Your task to perform on an android device: all mails in gmail Image 0: 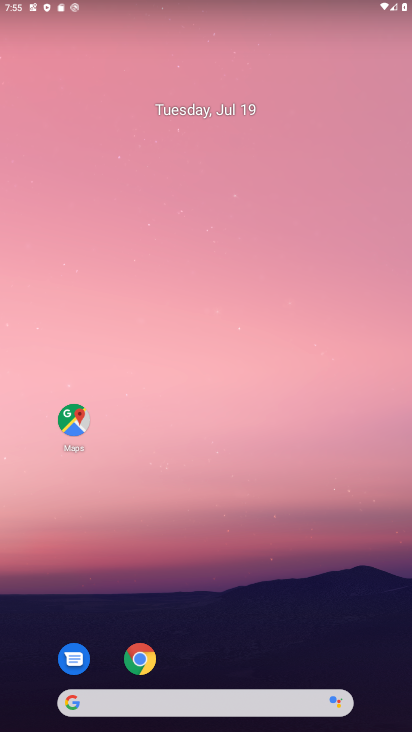
Step 0: drag from (170, 692) to (182, 20)
Your task to perform on an android device: all mails in gmail Image 1: 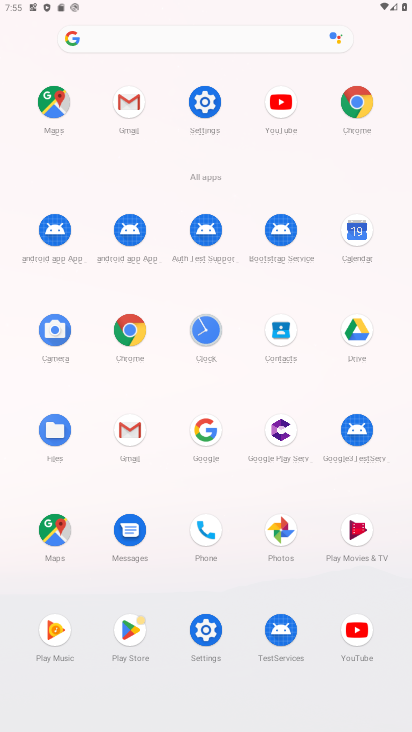
Step 1: click (122, 114)
Your task to perform on an android device: all mails in gmail Image 2: 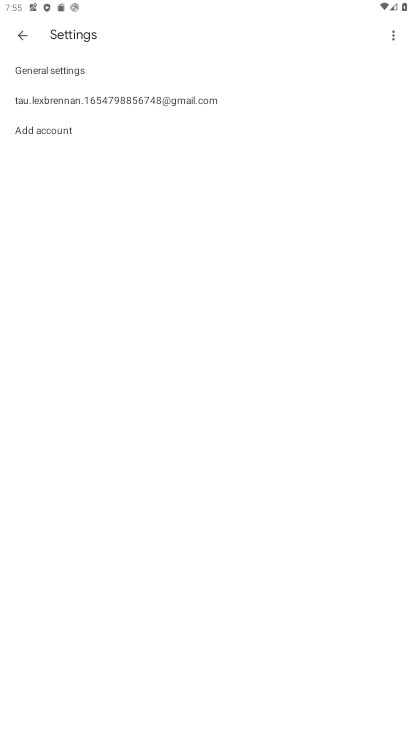
Step 2: click (22, 39)
Your task to perform on an android device: all mails in gmail Image 3: 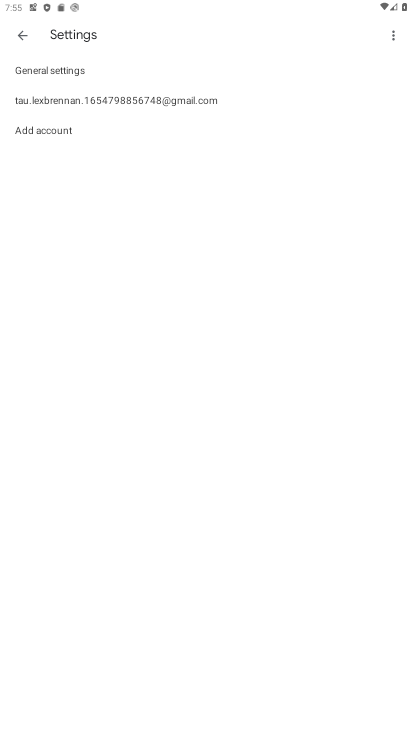
Step 3: click (17, 35)
Your task to perform on an android device: all mails in gmail Image 4: 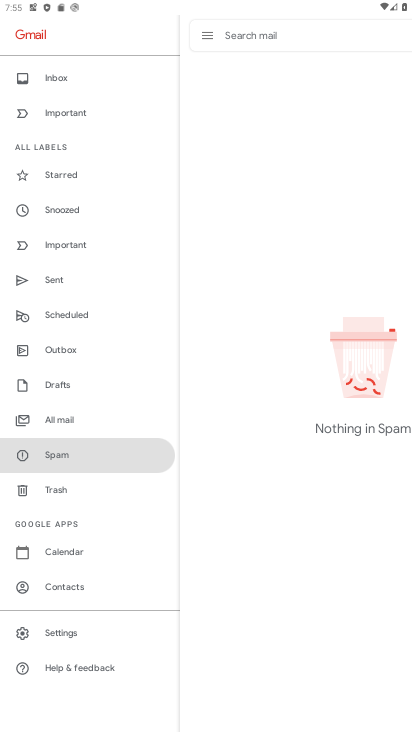
Step 4: click (53, 412)
Your task to perform on an android device: all mails in gmail Image 5: 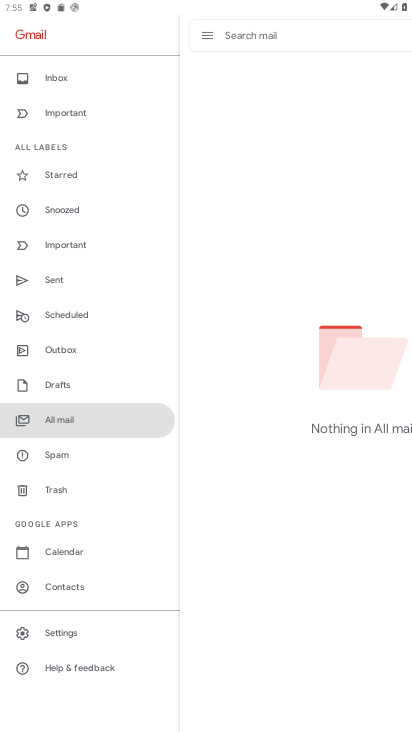
Step 5: task complete